Your task to perform on an android device: Open Youtube and go to the subscriptions tab Image 0: 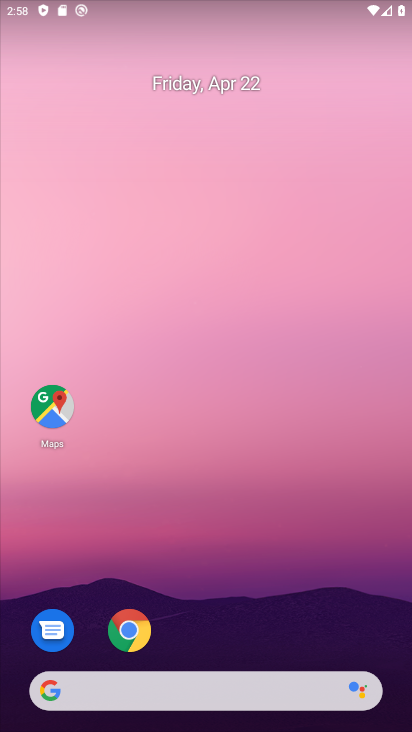
Step 0: drag from (134, 462) to (41, 14)
Your task to perform on an android device: Open Youtube and go to the subscriptions tab Image 1: 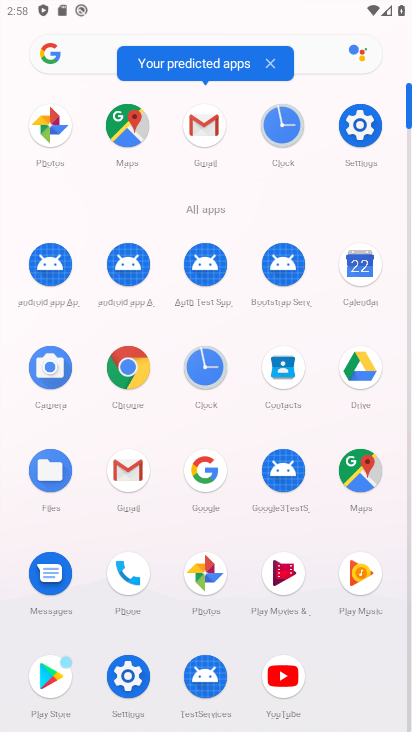
Step 1: click (283, 672)
Your task to perform on an android device: Open Youtube and go to the subscriptions tab Image 2: 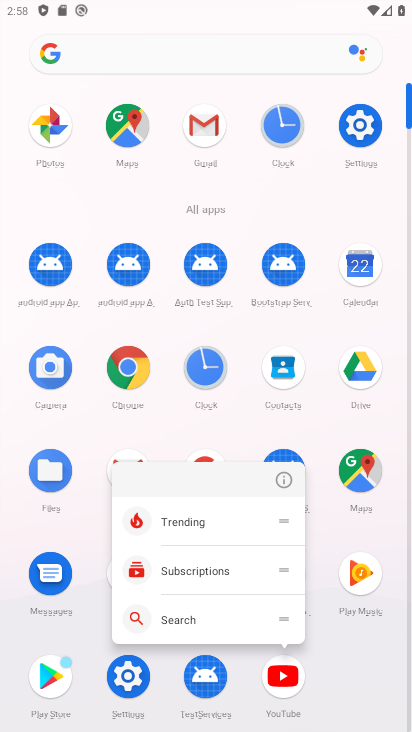
Step 2: click (276, 672)
Your task to perform on an android device: Open Youtube and go to the subscriptions tab Image 3: 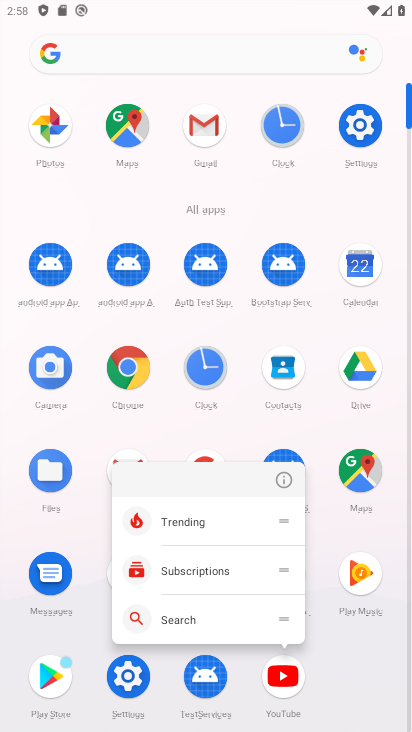
Step 3: click (276, 672)
Your task to perform on an android device: Open Youtube and go to the subscriptions tab Image 4: 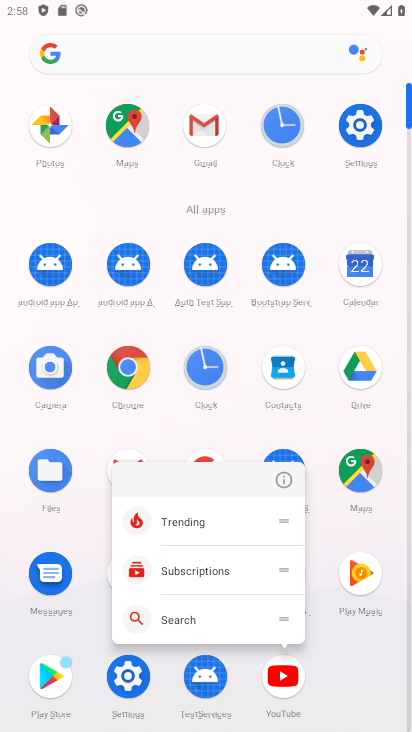
Step 4: click (276, 672)
Your task to perform on an android device: Open Youtube and go to the subscriptions tab Image 5: 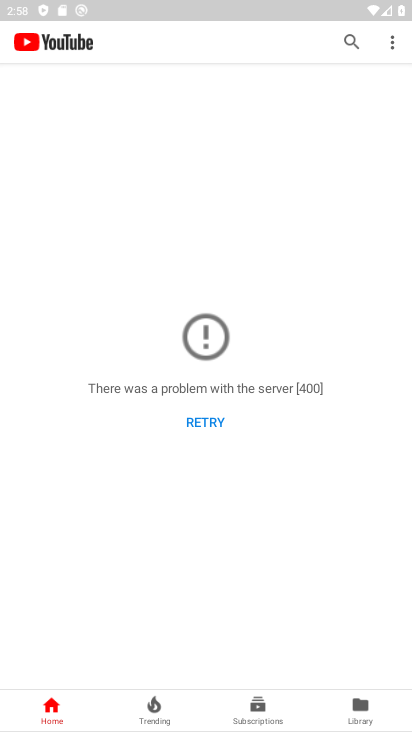
Step 5: task complete